Your task to perform on an android device: What is the capital of Mexico? Image 0: 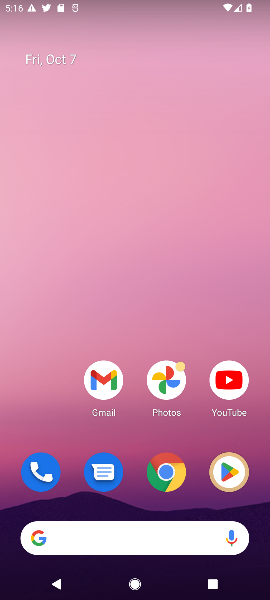
Step 0: click (173, 475)
Your task to perform on an android device: What is the capital of Mexico? Image 1: 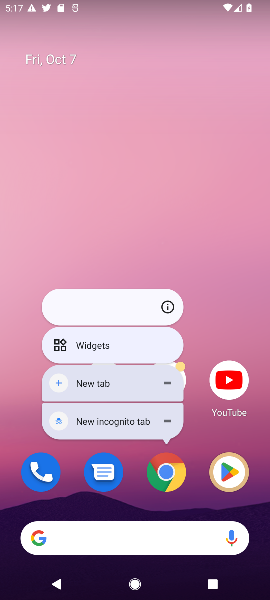
Step 1: click (167, 472)
Your task to perform on an android device: What is the capital of Mexico? Image 2: 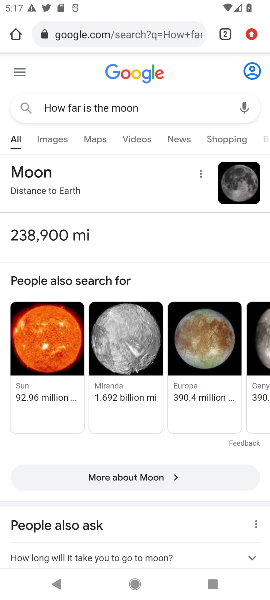
Step 2: click (74, 38)
Your task to perform on an android device: What is the capital of Mexico? Image 3: 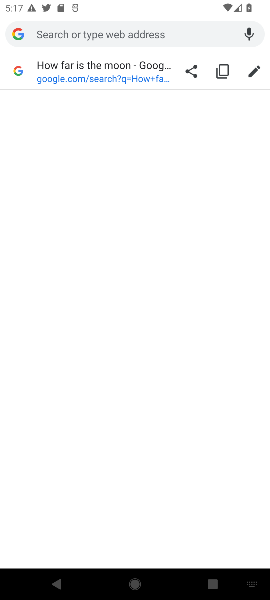
Step 3: type "capital of Mexico"
Your task to perform on an android device: What is the capital of Mexico? Image 4: 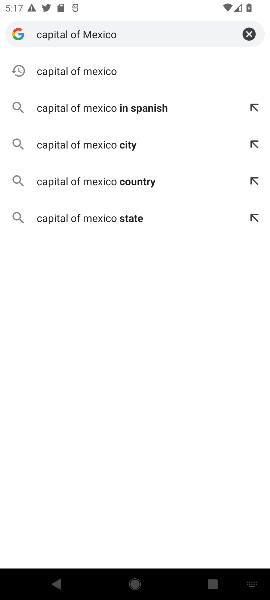
Step 4: press enter
Your task to perform on an android device: What is the capital of Mexico? Image 5: 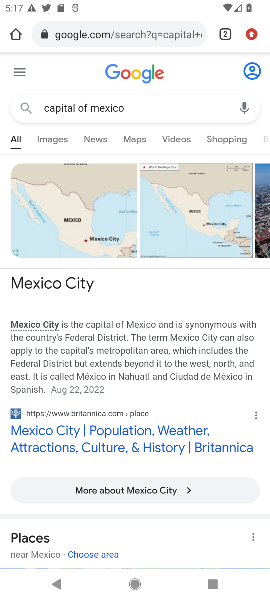
Step 5: task complete